Your task to perform on an android device: turn on bluetooth scan Image 0: 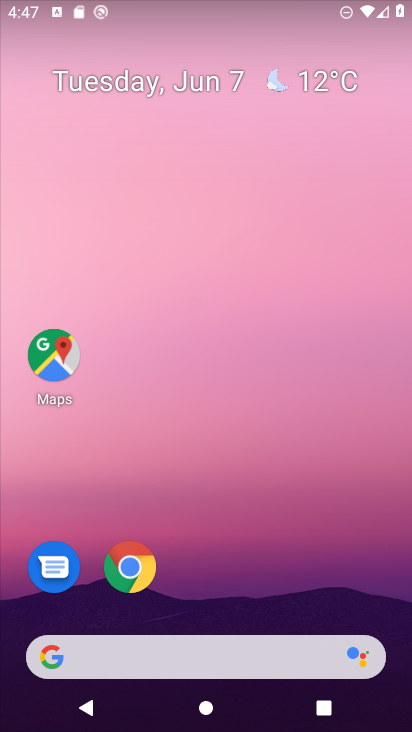
Step 0: drag from (260, 655) to (324, 16)
Your task to perform on an android device: turn on bluetooth scan Image 1: 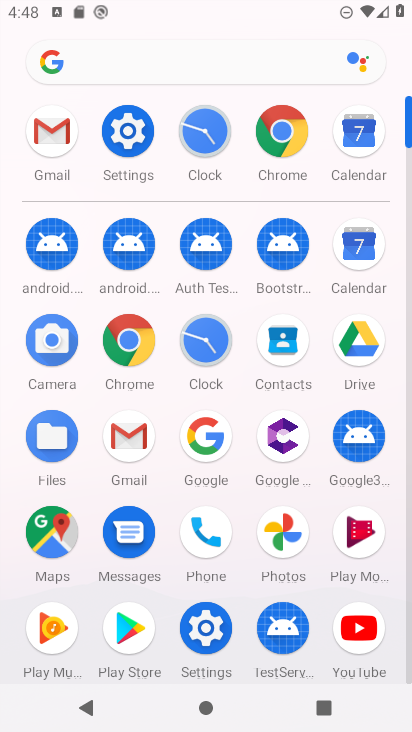
Step 1: click (134, 124)
Your task to perform on an android device: turn on bluetooth scan Image 2: 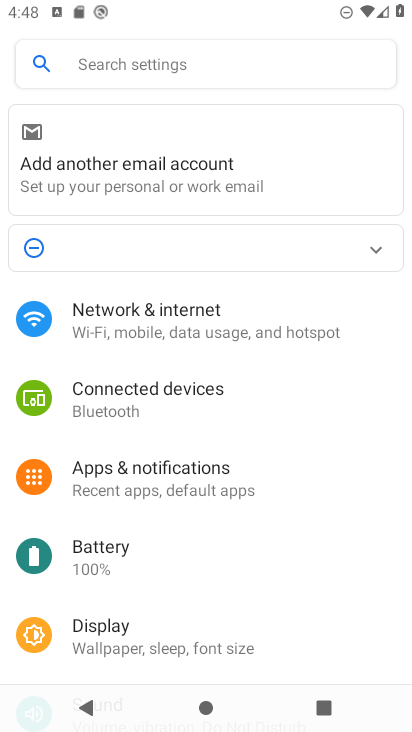
Step 2: drag from (195, 582) to (240, 114)
Your task to perform on an android device: turn on bluetooth scan Image 3: 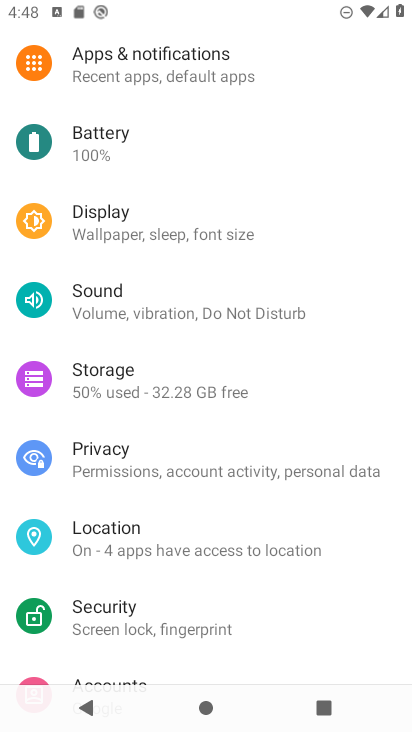
Step 3: click (147, 538)
Your task to perform on an android device: turn on bluetooth scan Image 4: 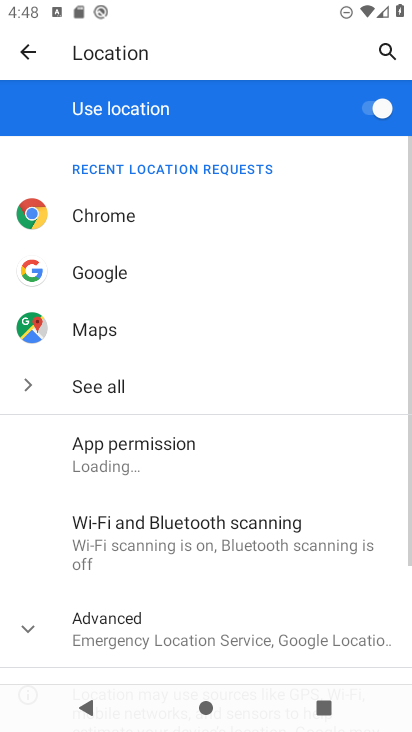
Step 4: click (251, 545)
Your task to perform on an android device: turn on bluetooth scan Image 5: 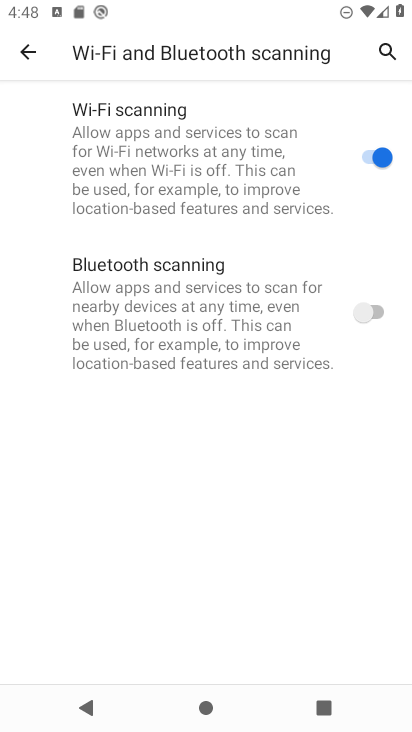
Step 5: click (377, 315)
Your task to perform on an android device: turn on bluetooth scan Image 6: 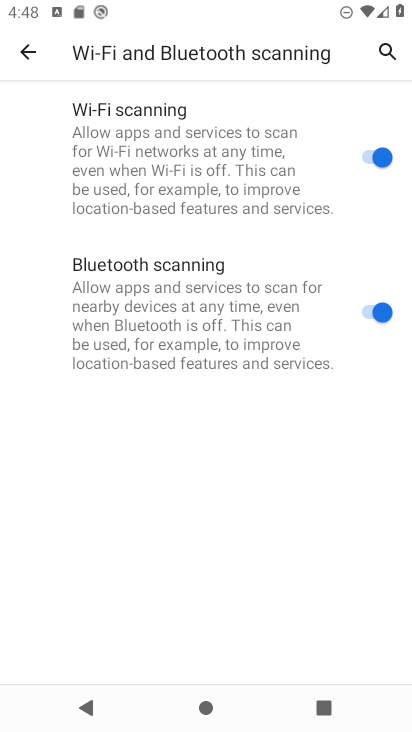
Step 6: task complete